Your task to perform on an android device: open a new tab in the chrome app Image 0: 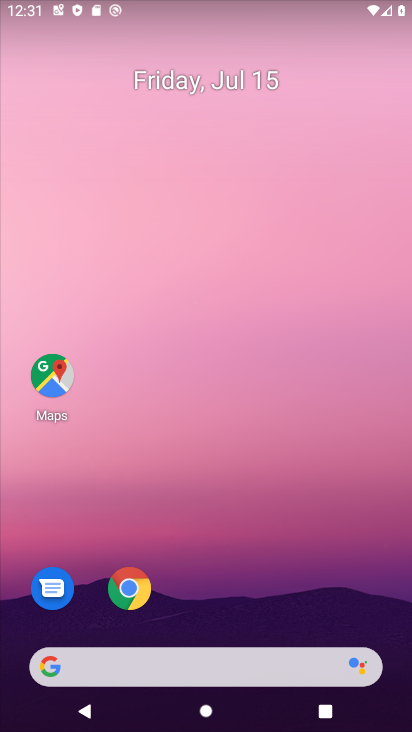
Step 0: click (147, 588)
Your task to perform on an android device: open a new tab in the chrome app Image 1: 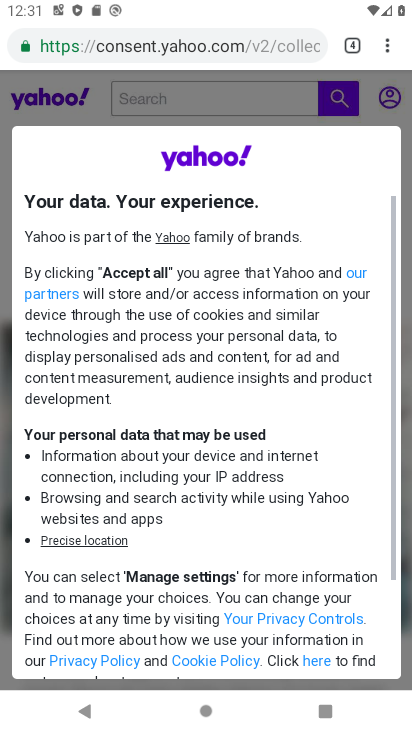
Step 1: click (388, 40)
Your task to perform on an android device: open a new tab in the chrome app Image 2: 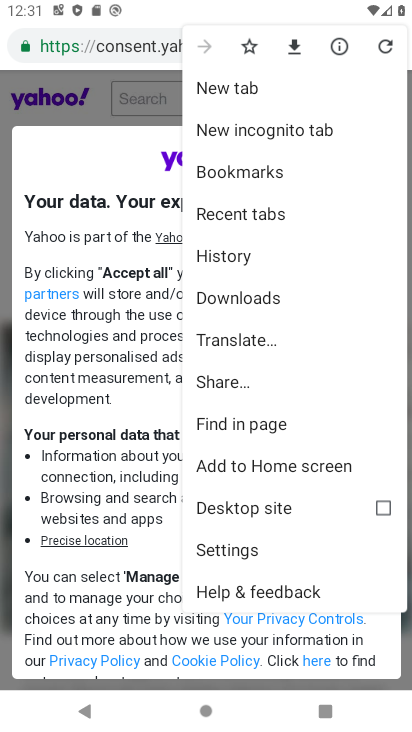
Step 2: click (286, 92)
Your task to perform on an android device: open a new tab in the chrome app Image 3: 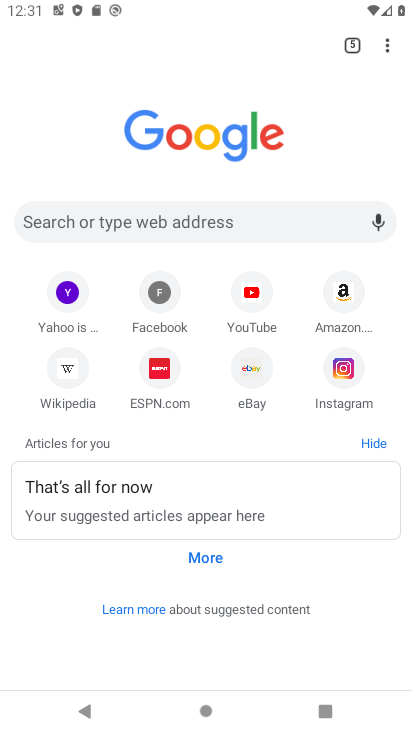
Step 3: task complete